Your task to perform on an android device: Go to calendar. Show me events next week Image 0: 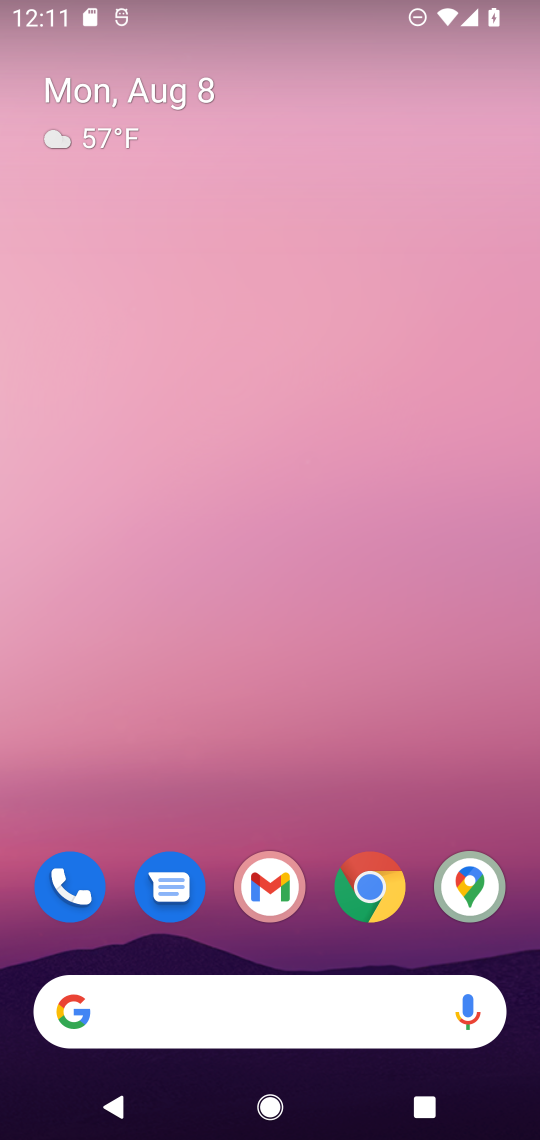
Step 0: drag from (293, 771) to (232, 112)
Your task to perform on an android device: Go to calendar. Show me events next week Image 1: 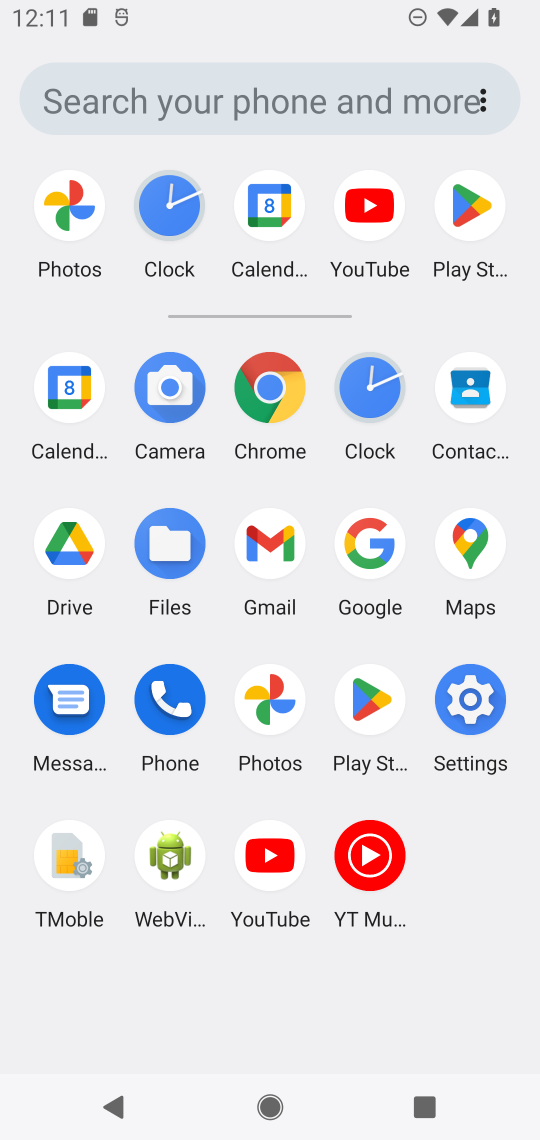
Step 1: click (56, 397)
Your task to perform on an android device: Go to calendar. Show me events next week Image 2: 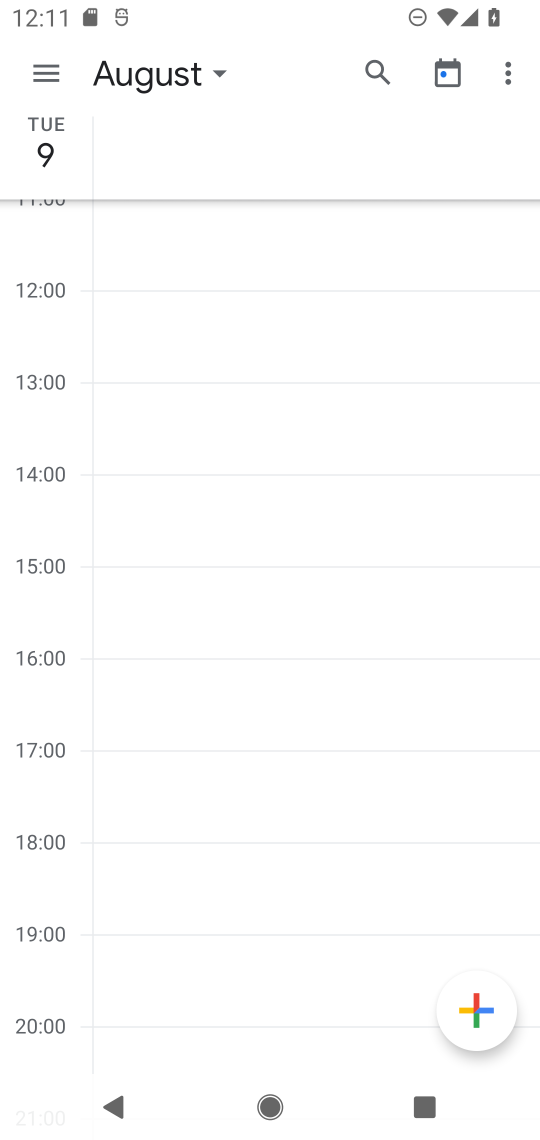
Step 2: click (44, 57)
Your task to perform on an android device: Go to calendar. Show me events next week Image 3: 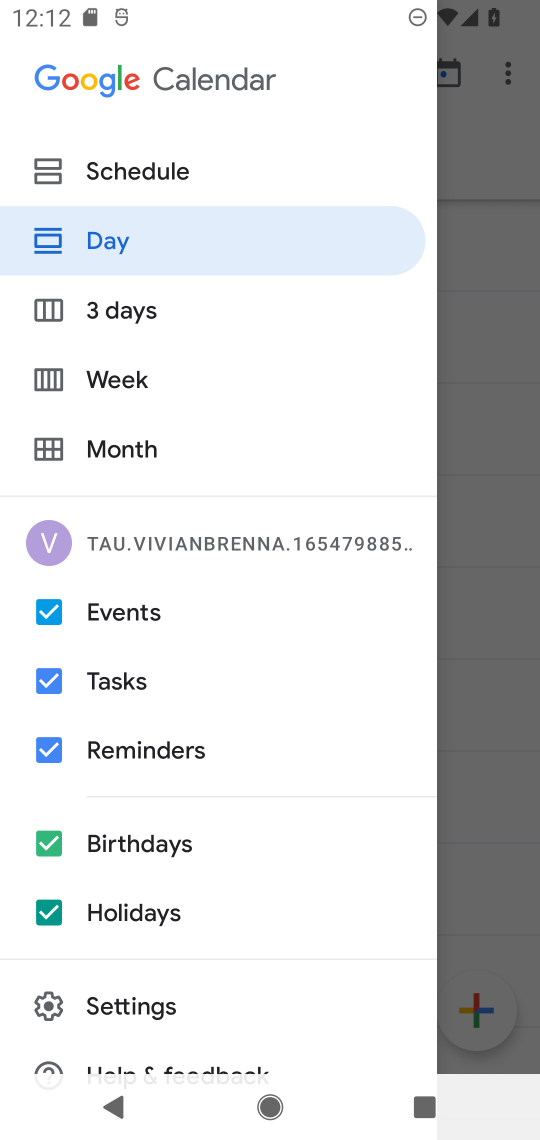
Step 3: click (111, 364)
Your task to perform on an android device: Go to calendar. Show me events next week Image 4: 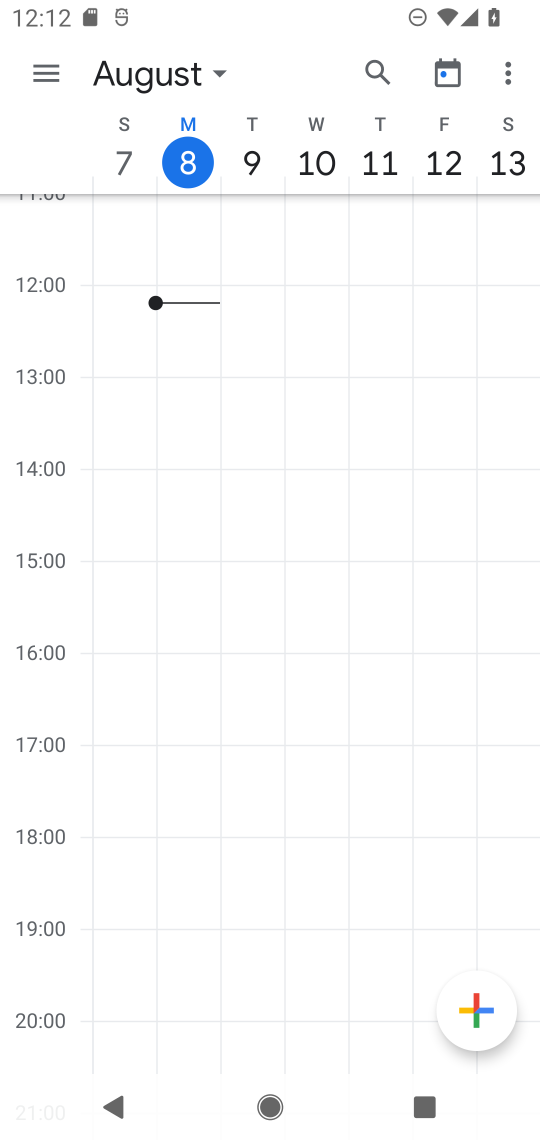
Step 4: click (221, 71)
Your task to perform on an android device: Go to calendar. Show me events next week Image 5: 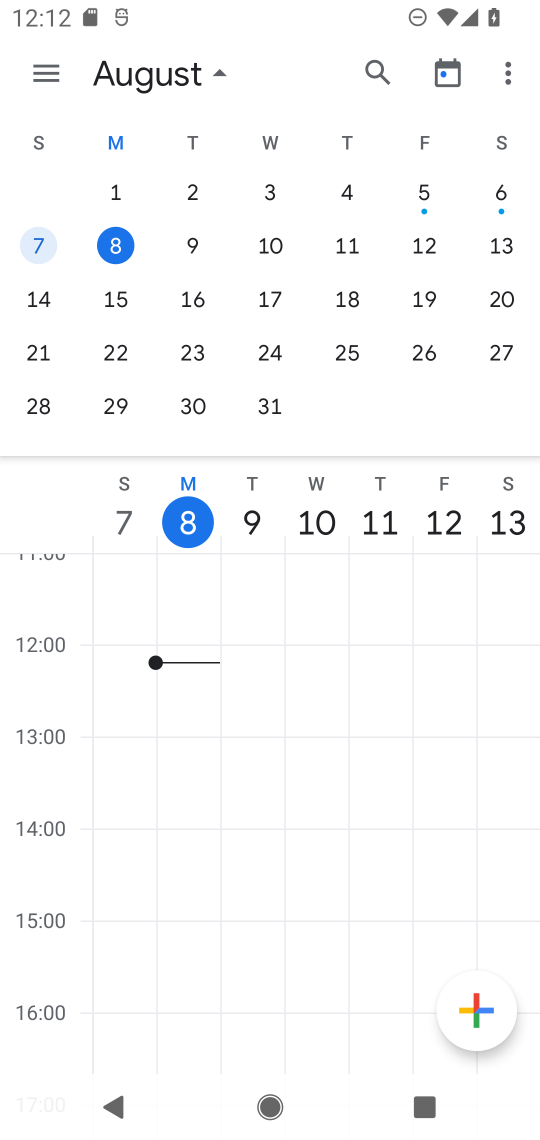
Step 5: click (192, 289)
Your task to perform on an android device: Go to calendar. Show me events next week Image 6: 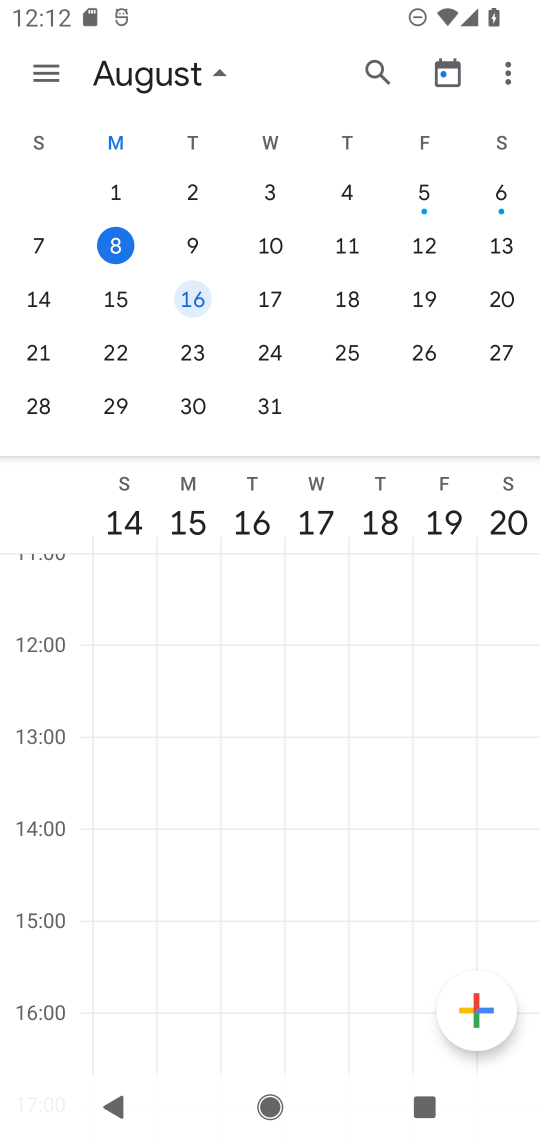
Step 6: task complete